Your task to perform on an android device: refresh tabs in the chrome app Image 0: 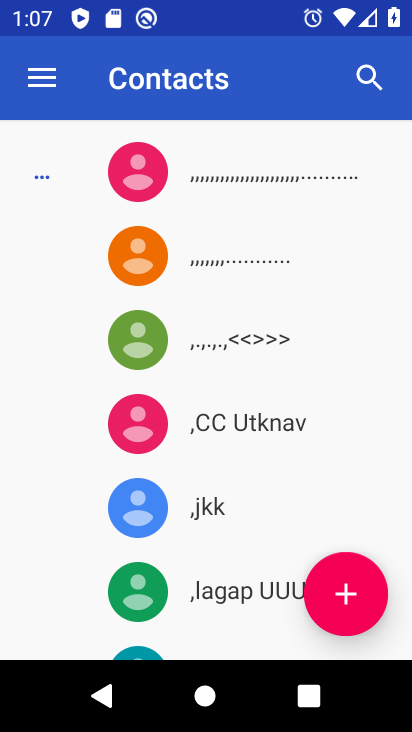
Step 0: press home button
Your task to perform on an android device: refresh tabs in the chrome app Image 1: 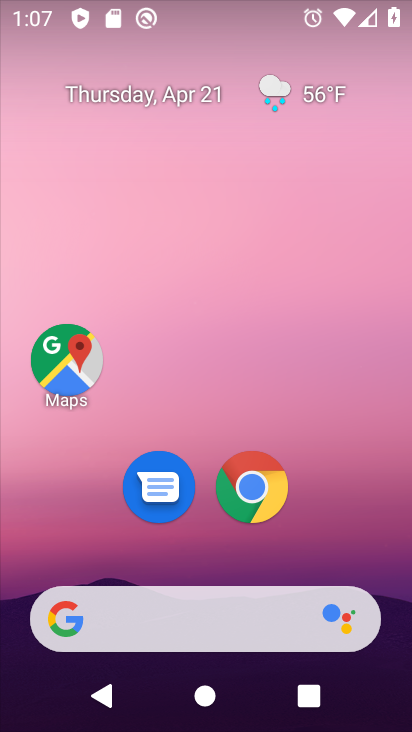
Step 1: click (253, 493)
Your task to perform on an android device: refresh tabs in the chrome app Image 2: 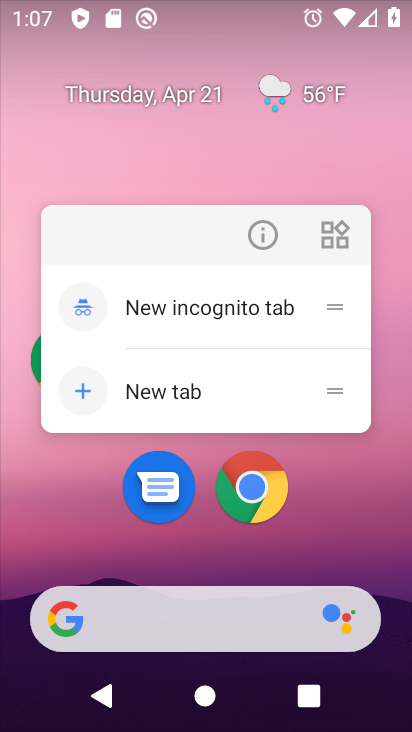
Step 2: click (273, 493)
Your task to perform on an android device: refresh tabs in the chrome app Image 3: 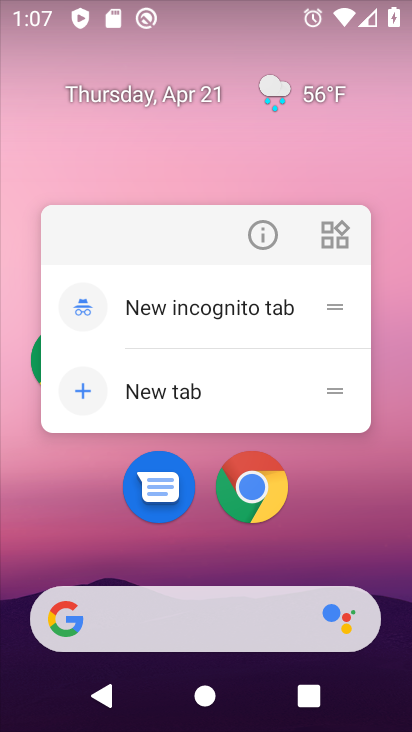
Step 3: click (262, 492)
Your task to perform on an android device: refresh tabs in the chrome app Image 4: 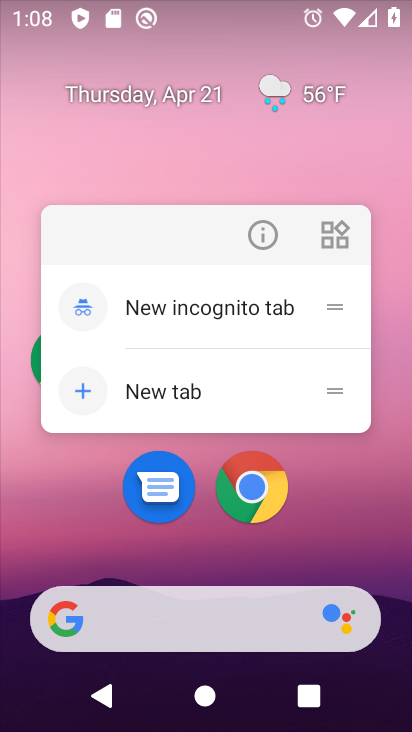
Step 4: click (253, 491)
Your task to perform on an android device: refresh tabs in the chrome app Image 5: 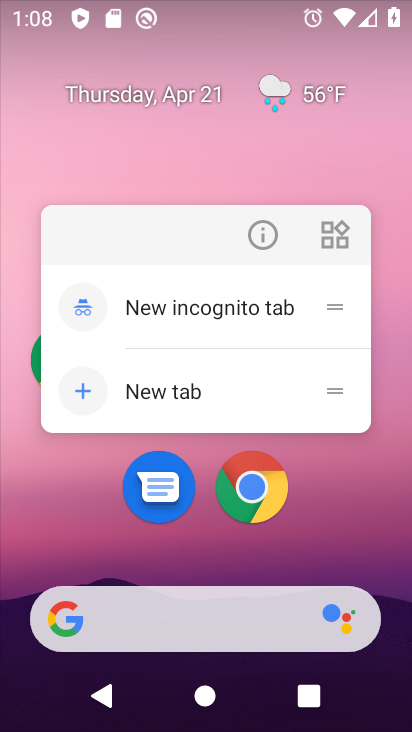
Step 5: click (251, 491)
Your task to perform on an android device: refresh tabs in the chrome app Image 6: 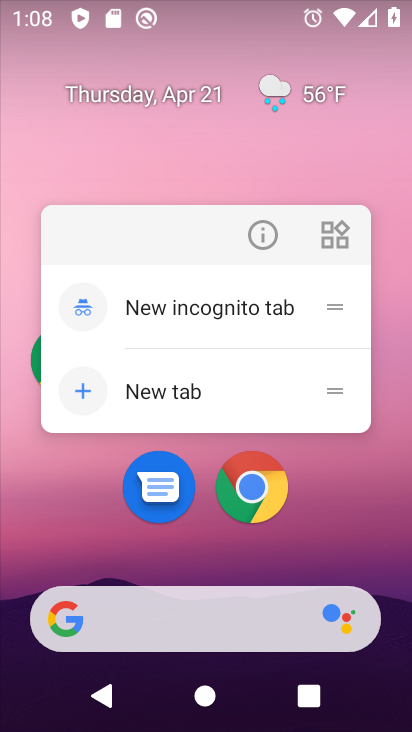
Step 6: click (251, 491)
Your task to perform on an android device: refresh tabs in the chrome app Image 7: 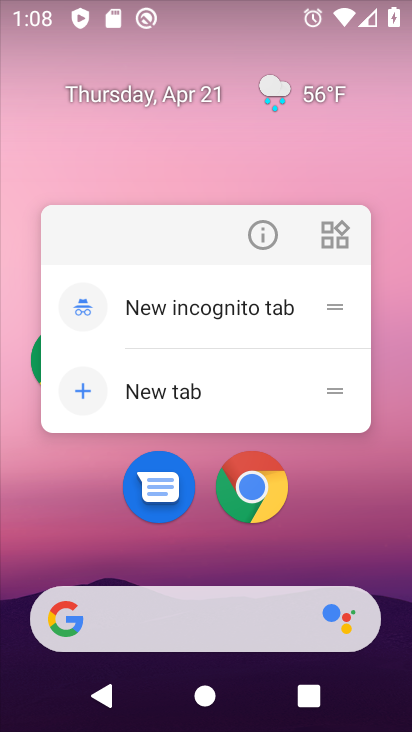
Step 7: click (271, 490)
Your task to perform on an android device: refresh tabs in the chrome app Image 8: 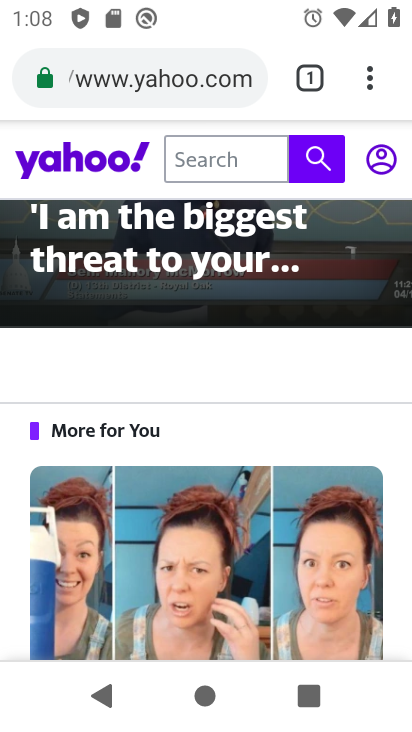
Step 8: click (367, 74)
Your task to perform on an android device: refresh tabs in the chrome app Image 9: 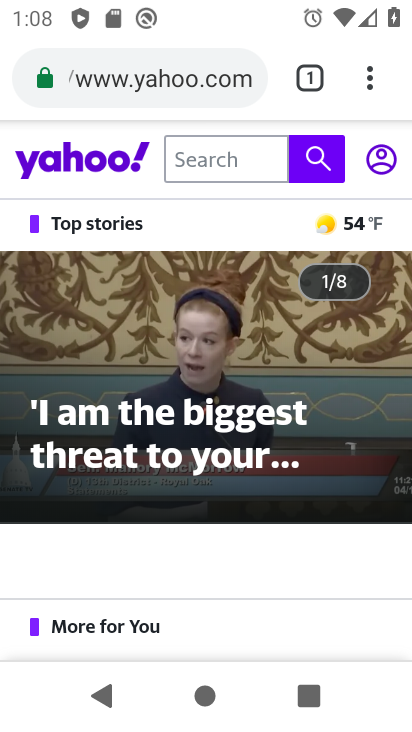
Step 9: task complete